Your task to perform on an android device: Open sound settings Image 0: 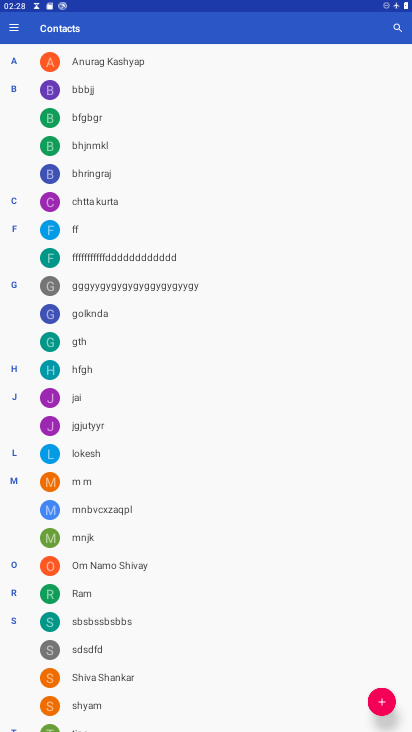
Step 0: press home button
Your task to perform on an android device: Open sound settings Image 1: 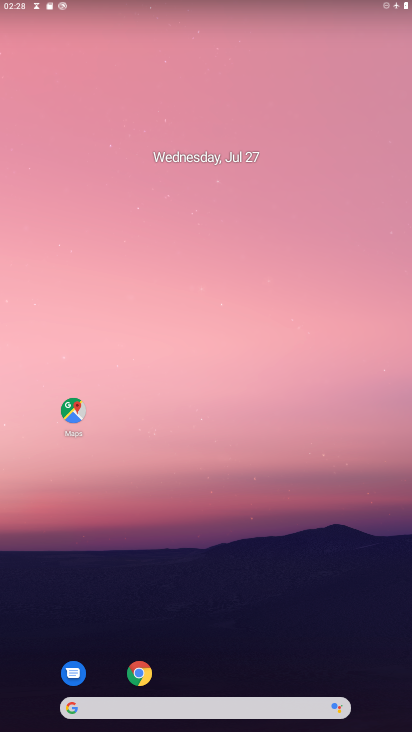
Step 1: drag from (182, 372) to (184, 95)
Your task to perform on an android device: Open sound settings Image 2: 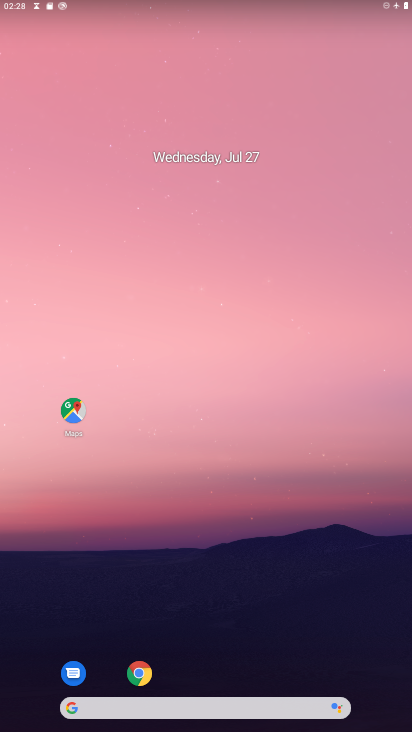
Step 2: drag from (203, 674) to (209, 84)
Your task to perform on an android device: Open sound settings Image 3: 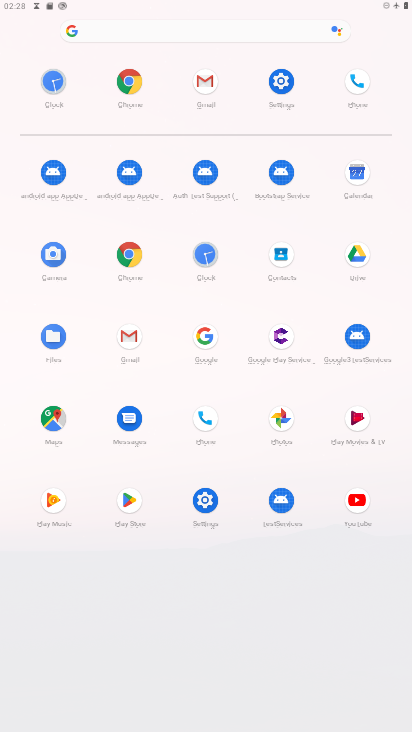
Step 3: click (282, 90)
Your task to perform on an android device: Open sound settings Image 4: 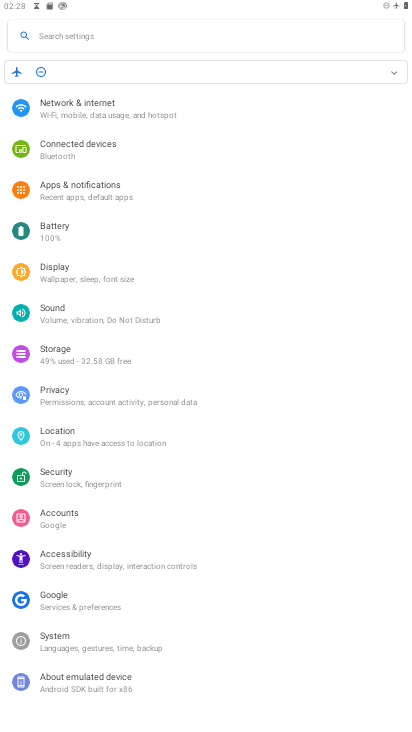
Step 4: click (72, 314)
Your task to perform on an android device: Open sound settings Image 5: 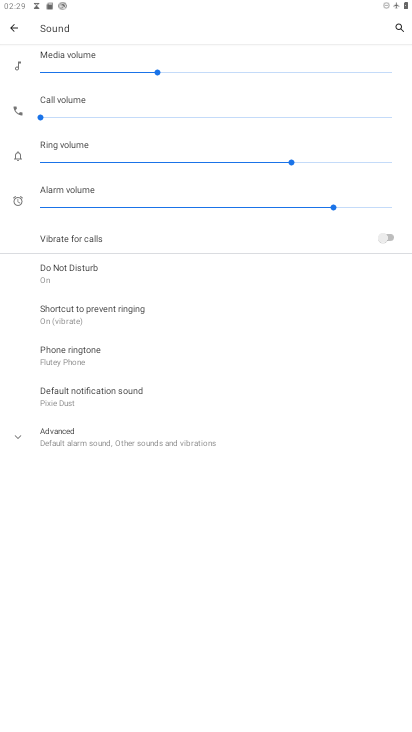
Step 5: task complete